Your task to perform on an android device: Search for seafood restaurants on Google Maps Image 0: 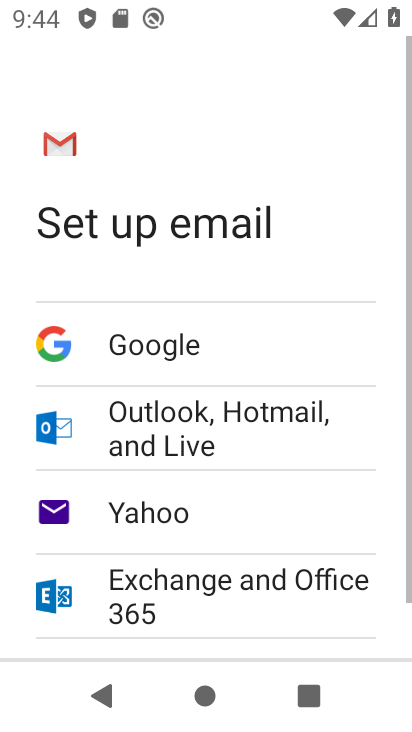
Step 0: press home button
Your task to perform on an android device: Search for seafood restaurants on Google Maps Image 1: 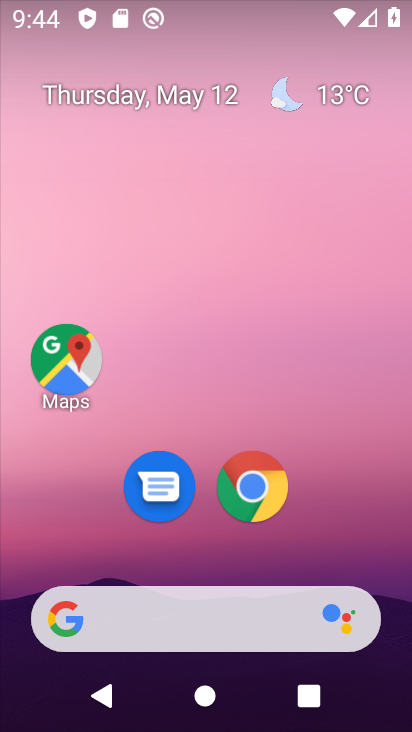
Step 1: click (61, 367)
Your task to perform on an android device: Search for seafood restaurants on Google Maps Image 2: 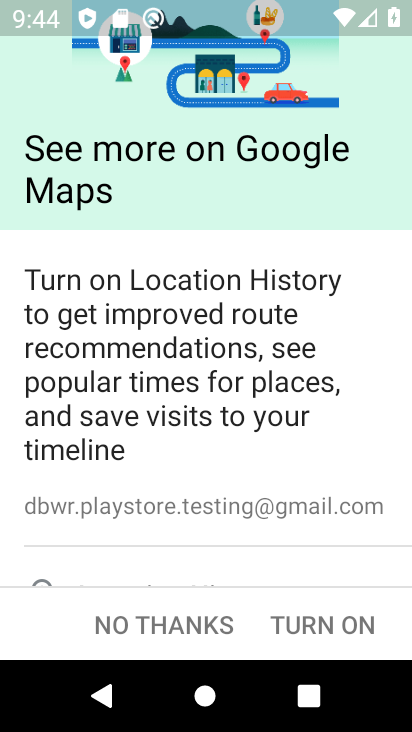
Step 2: click (320, 622)
Your task to perform on an android device: Search for seafood restaurants on Google Maps Image 3: 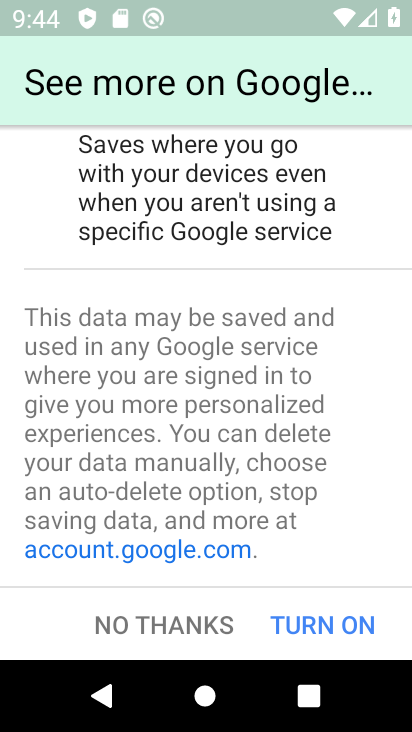
Step 3: click (320, 622)
Your task to perform on an android device: Search for seafood restaurants on Google Maps Image 4: 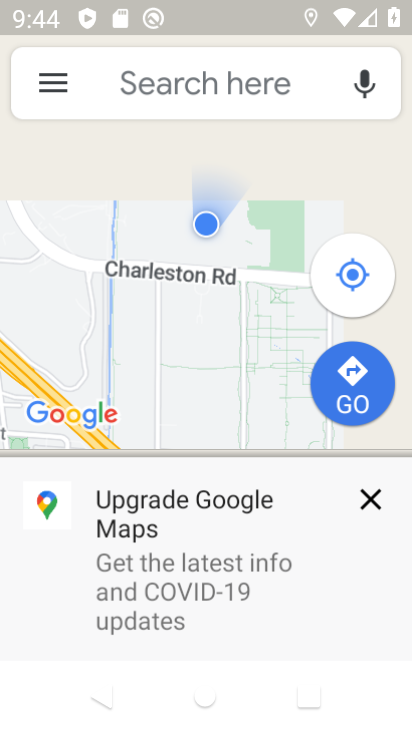
Step 4: click (291, 615)
Your task to perform on an android device: Search for seafood restaurants on Google Maps Image 5: 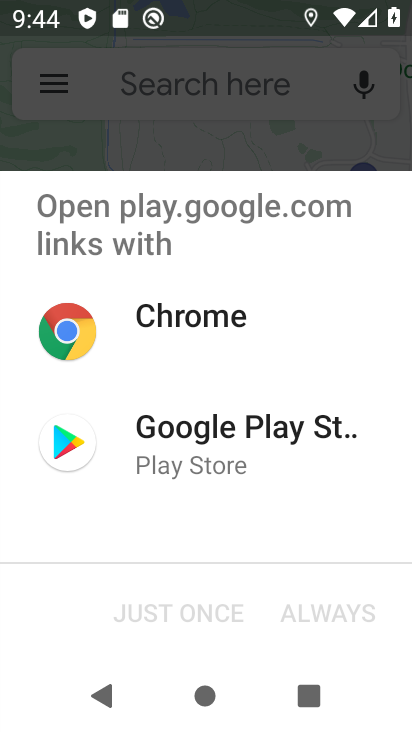
Step 5: click (241, 107)
Your task to perform on an android device: Search for seafood restaurants on Google Maps Image 6: 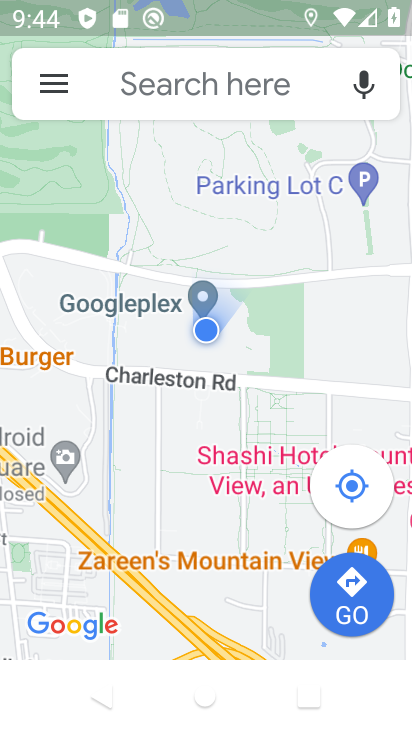
Step 6: click (238, 106)
Your task to perform on an android device: Search for seafood restaurants on Google Maps Image 7: 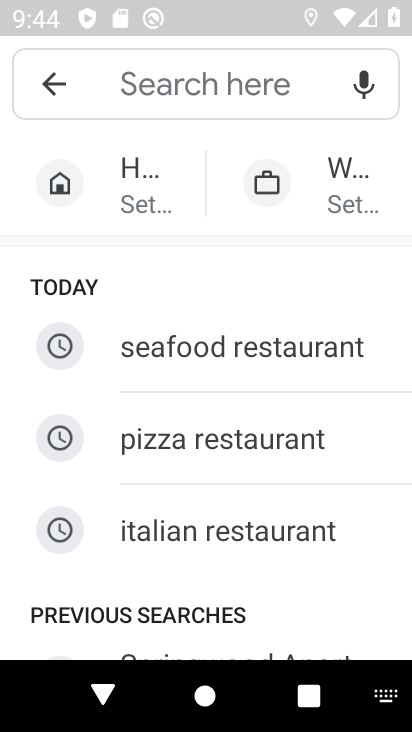
Step 7: click (281, 346)
Your task to perform on an android device: Search for seafood restaurants on Google Maps Image 8: 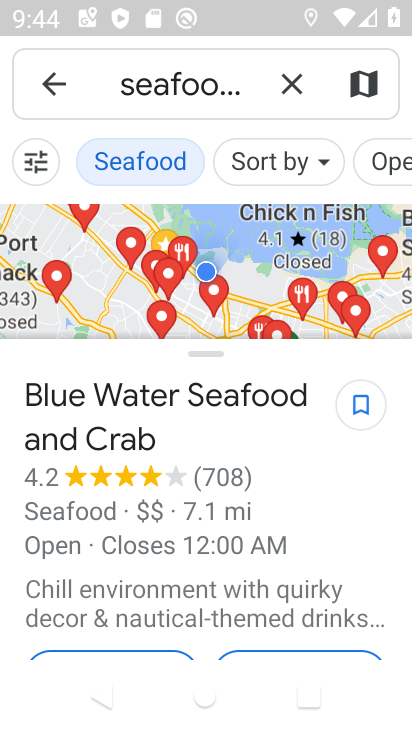
Step 8: task complete